Your task to perform on an android device: install app "Adobe Express: Graphic Design" Image 0: 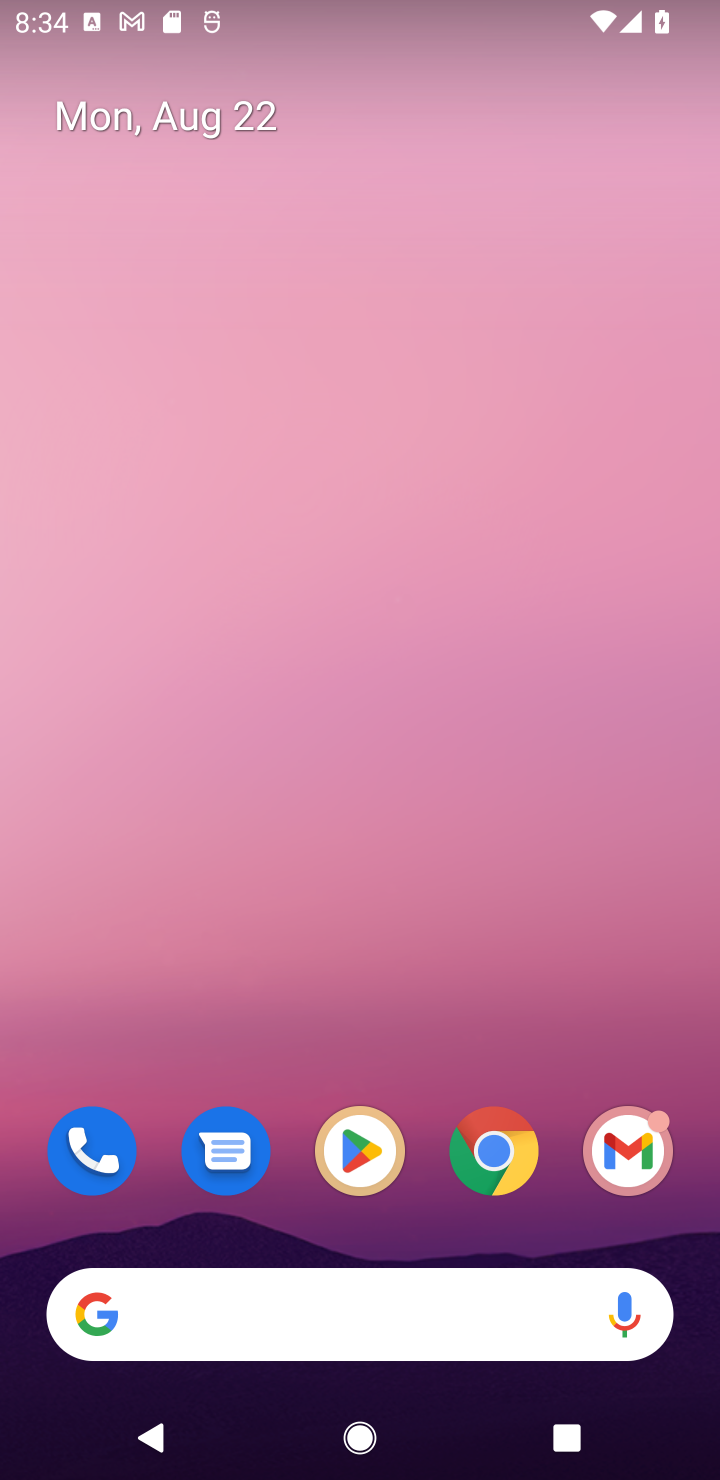
Step 0: click (353, 1142)
Your task to perform on an android device: install app "Adobe Express: Graphic Design" Image 1: 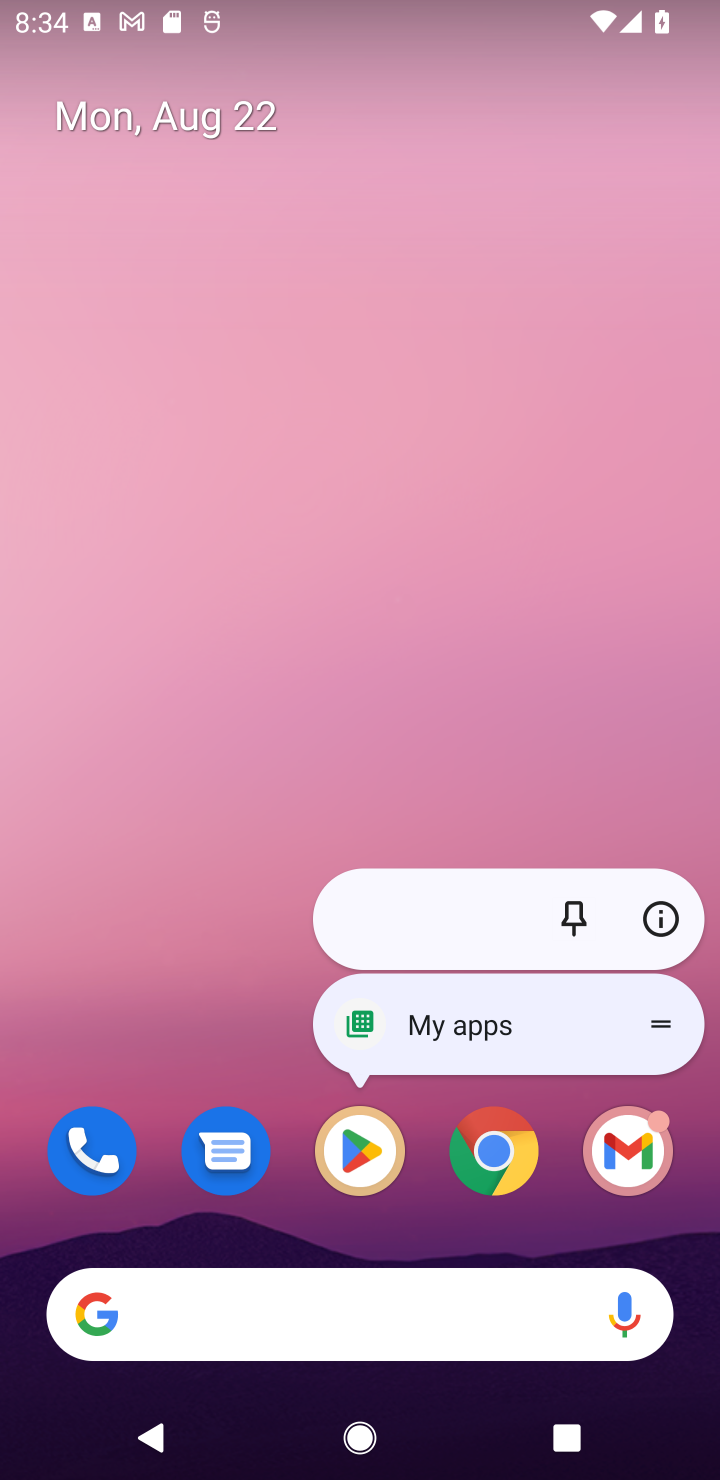
Step 1: click (351, 1158)
Your task to perform on an android device: install app "Adobe Express: Graphic Design" Image 2: 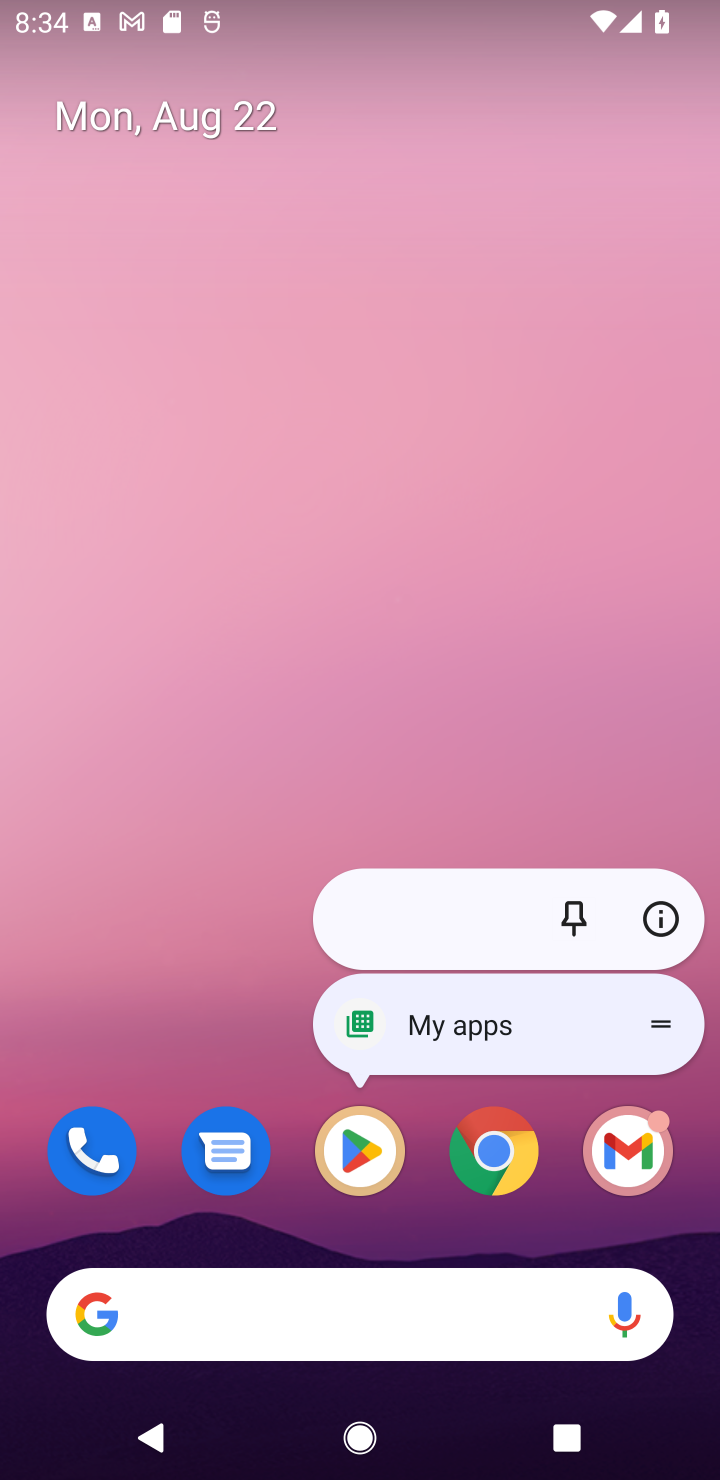
Step 2: click (349, 1175)
Your task to perform on an android device: install app "Adobe Express: Graphic Design" Image 3: 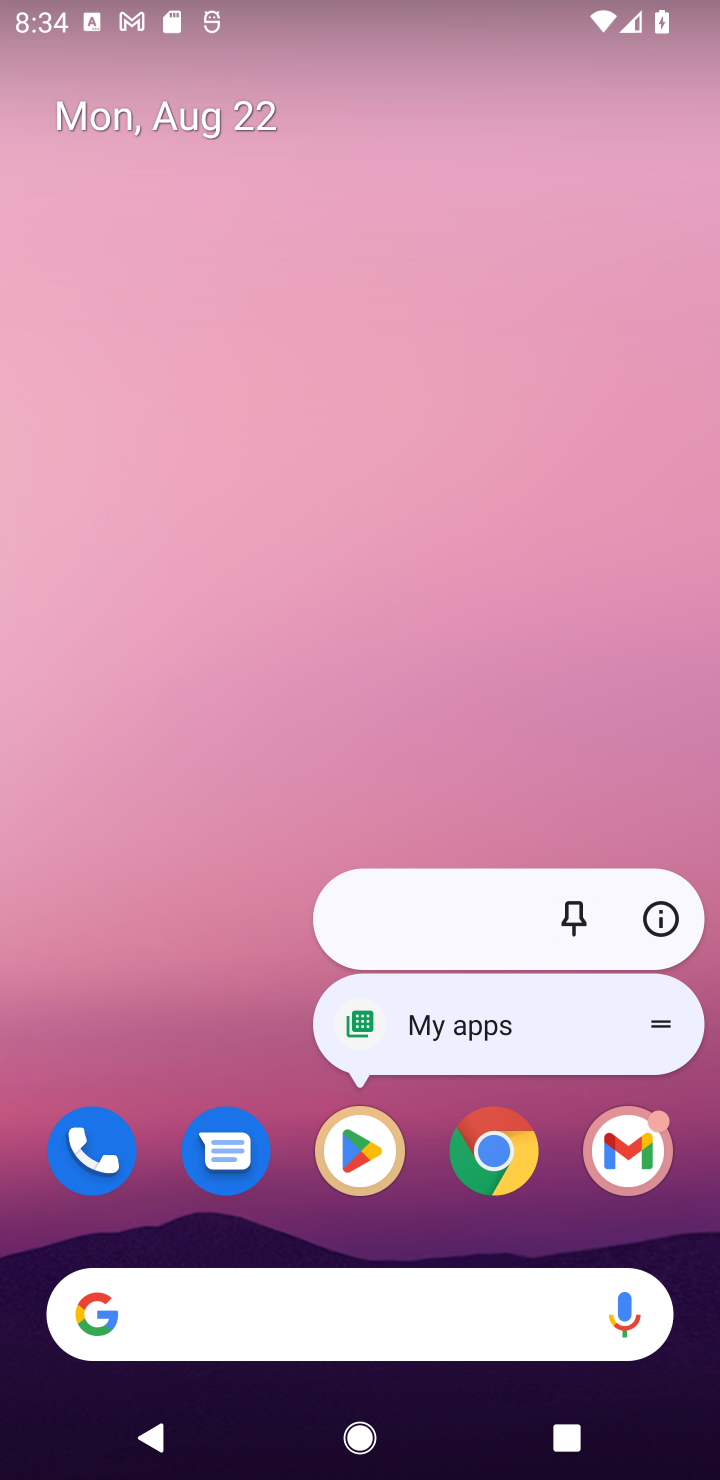
Step 3: click (350, 1169)
Your task to perform on an android device: install app "Adobe Express: Graphic Design" Image 4: 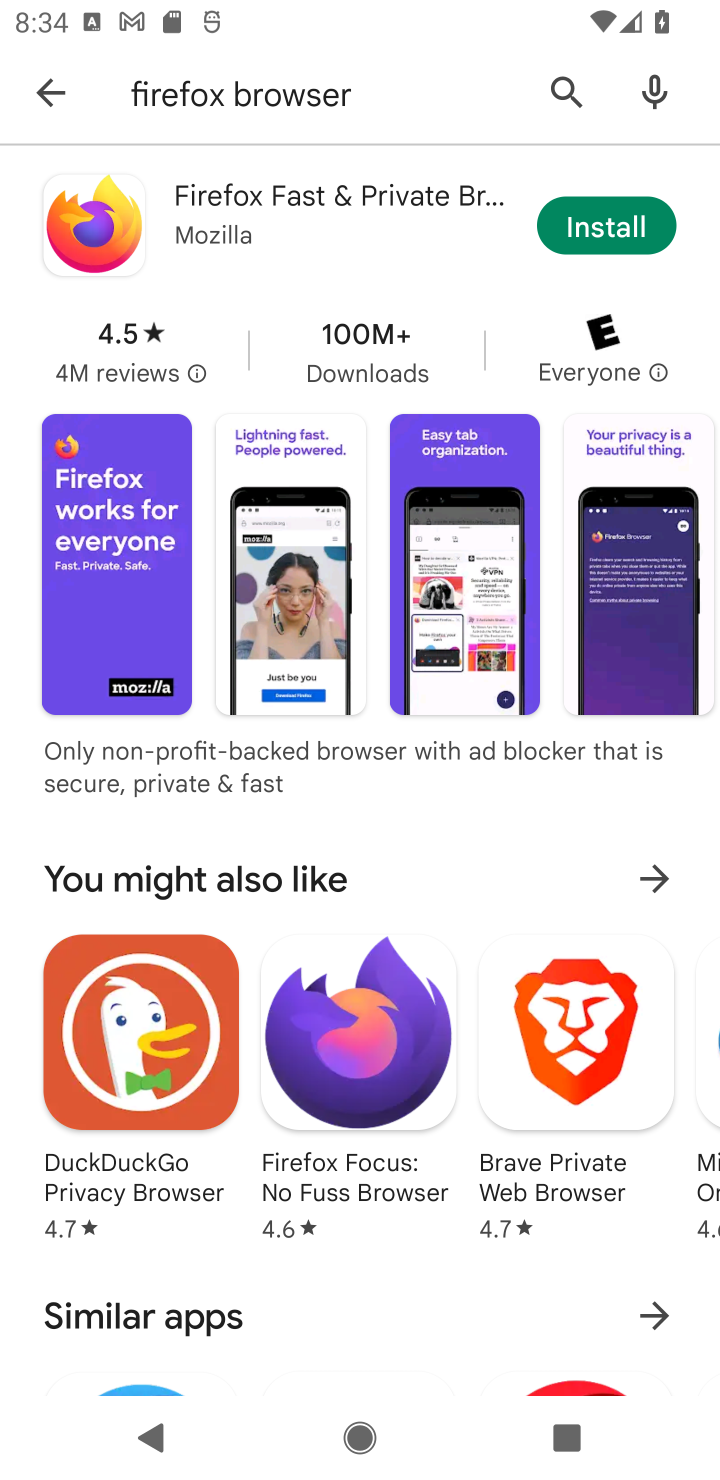
Step 4: click (553, 79)
Your task to perform on an android device: install app "Adobe Express: Graphic Design" Image 5: 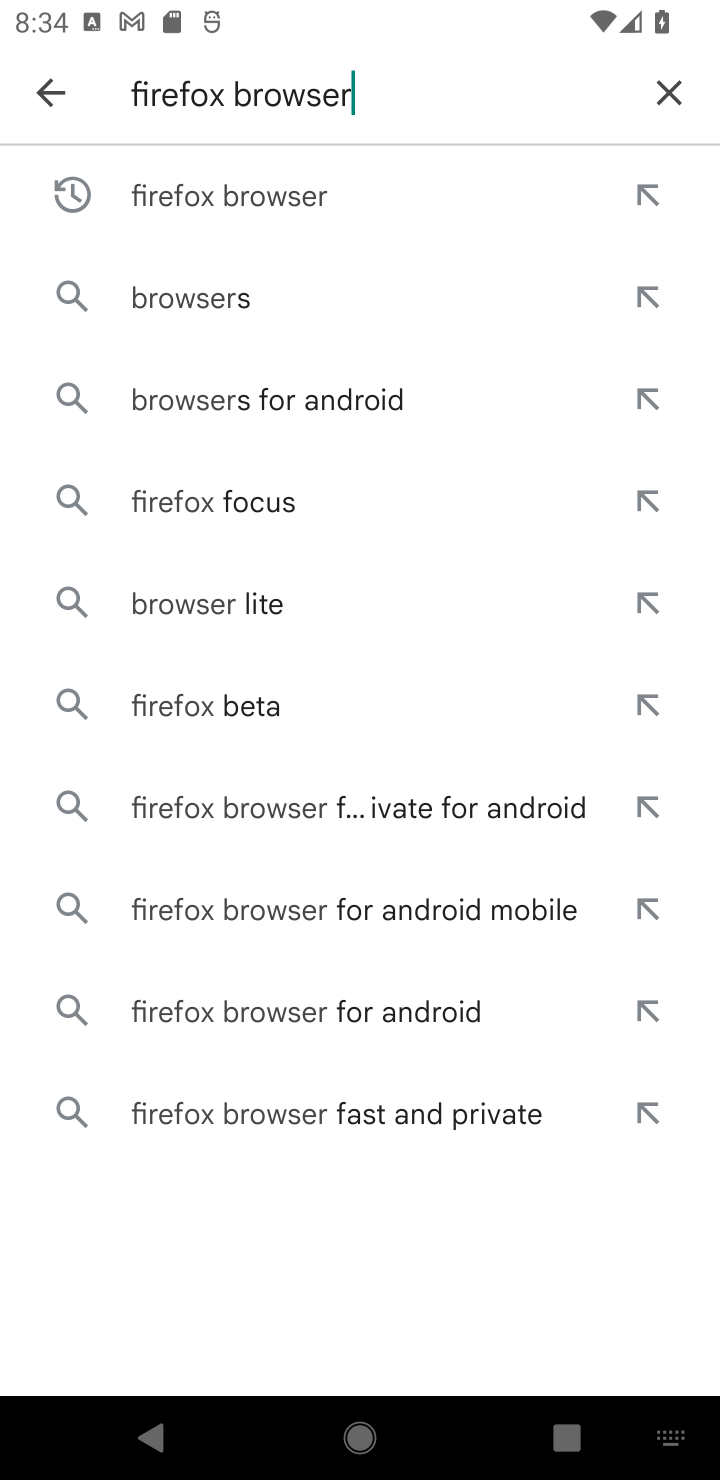
Step 5: click (657, 72)
Your task to perform on an android device: install app "Adobe Express: Graphic Design" Image 6: 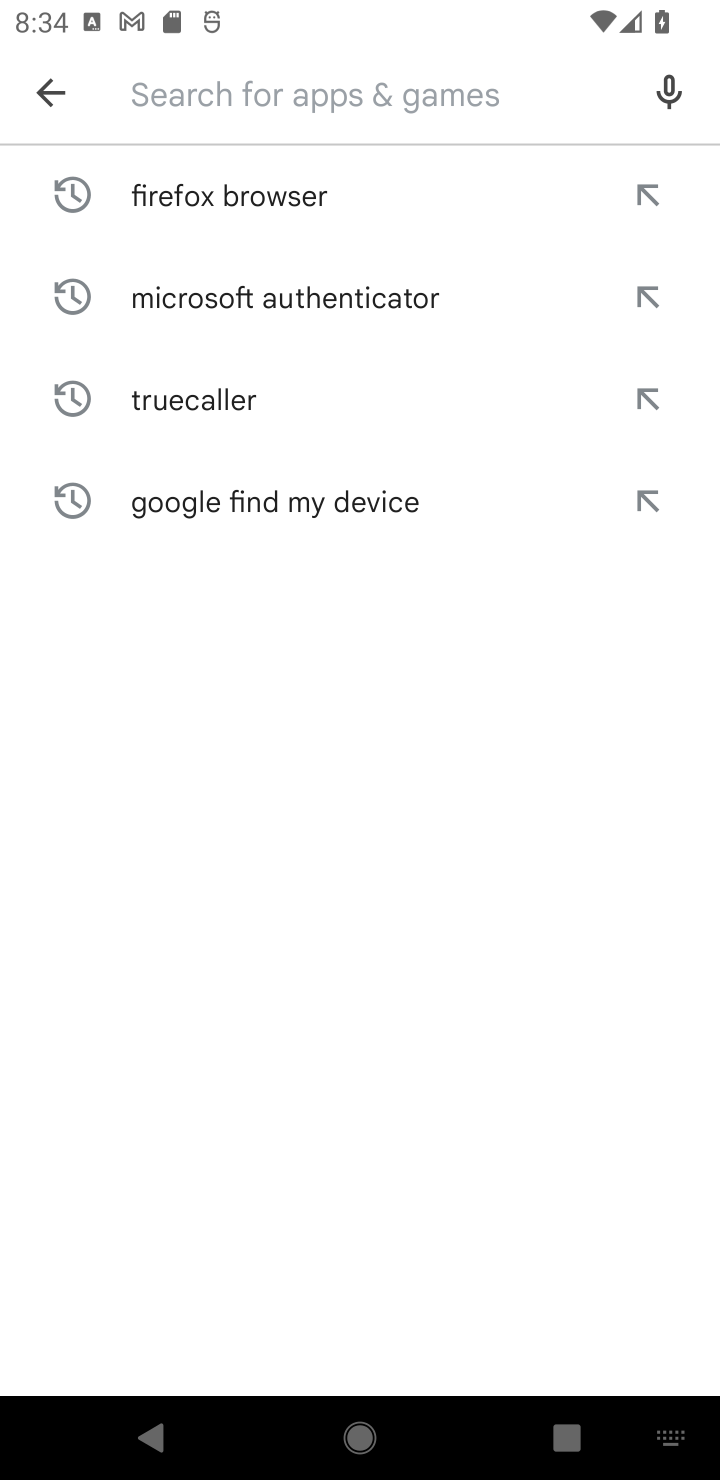
Step 6: type "Adobe Express: Graphic Design"
Your task to perform on an android device: install app "Adobe Express: Graphic Design" Image 7: 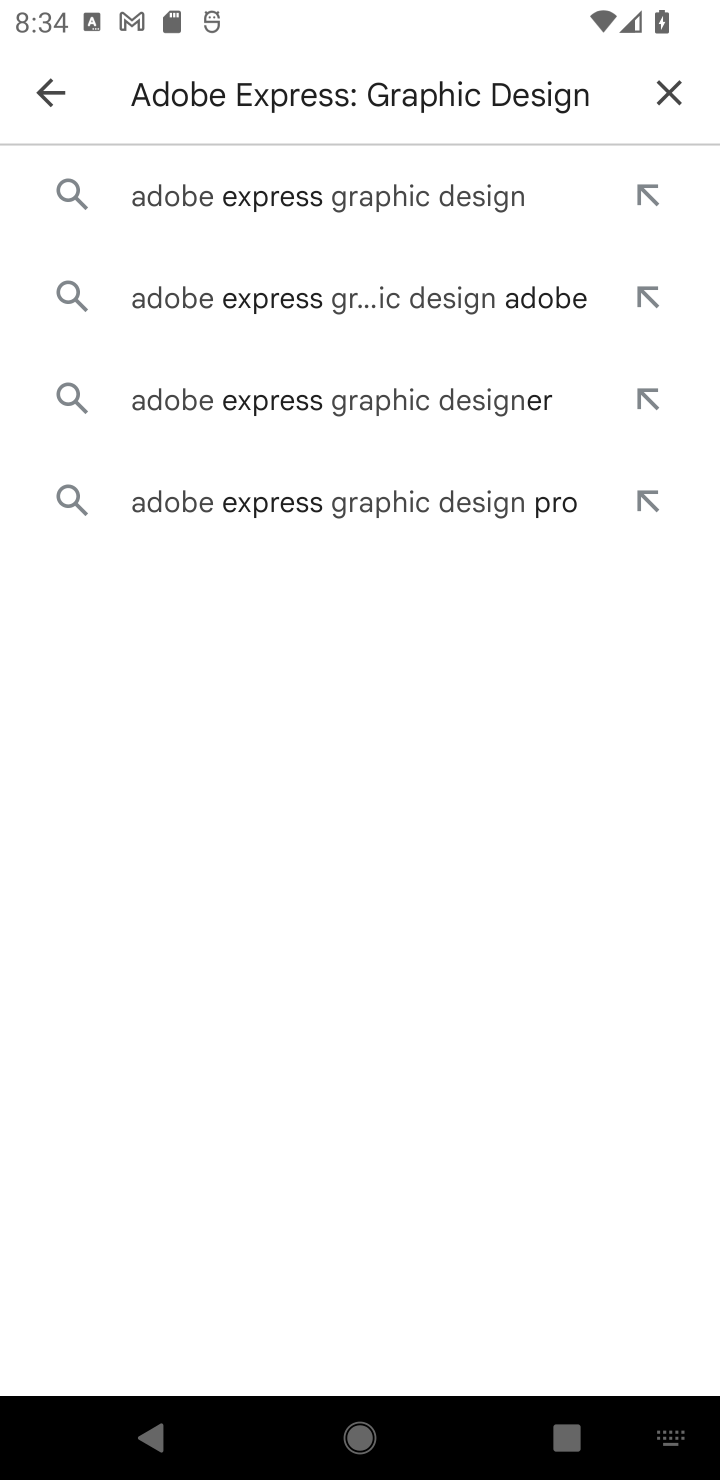
Step 7: click (313, 202)
Your task to perform on an android device: install app "Adobe Express: Graphic Design" Image 8: 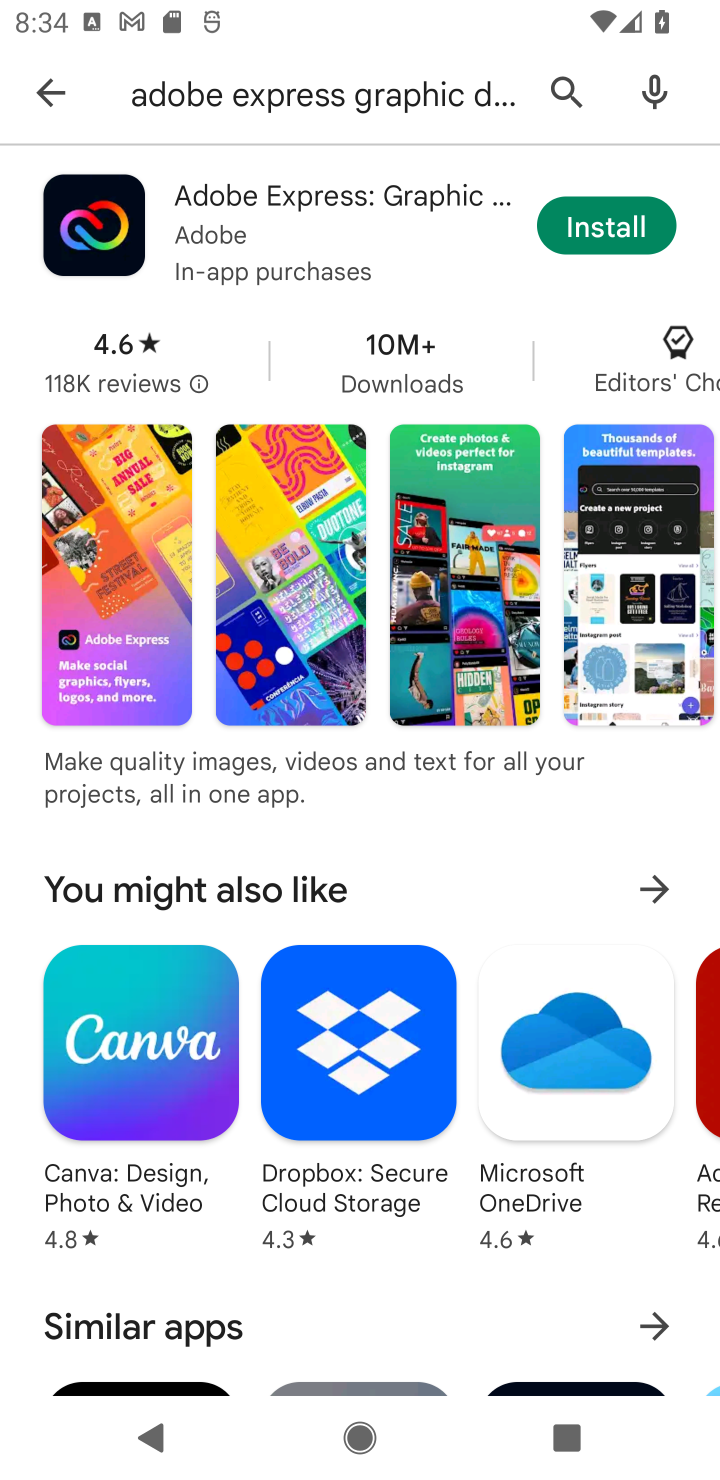
Step 8: click (633, 224)
Your task to perform on an android device: install app "Adobe Express: Graphic Design" Image 9: 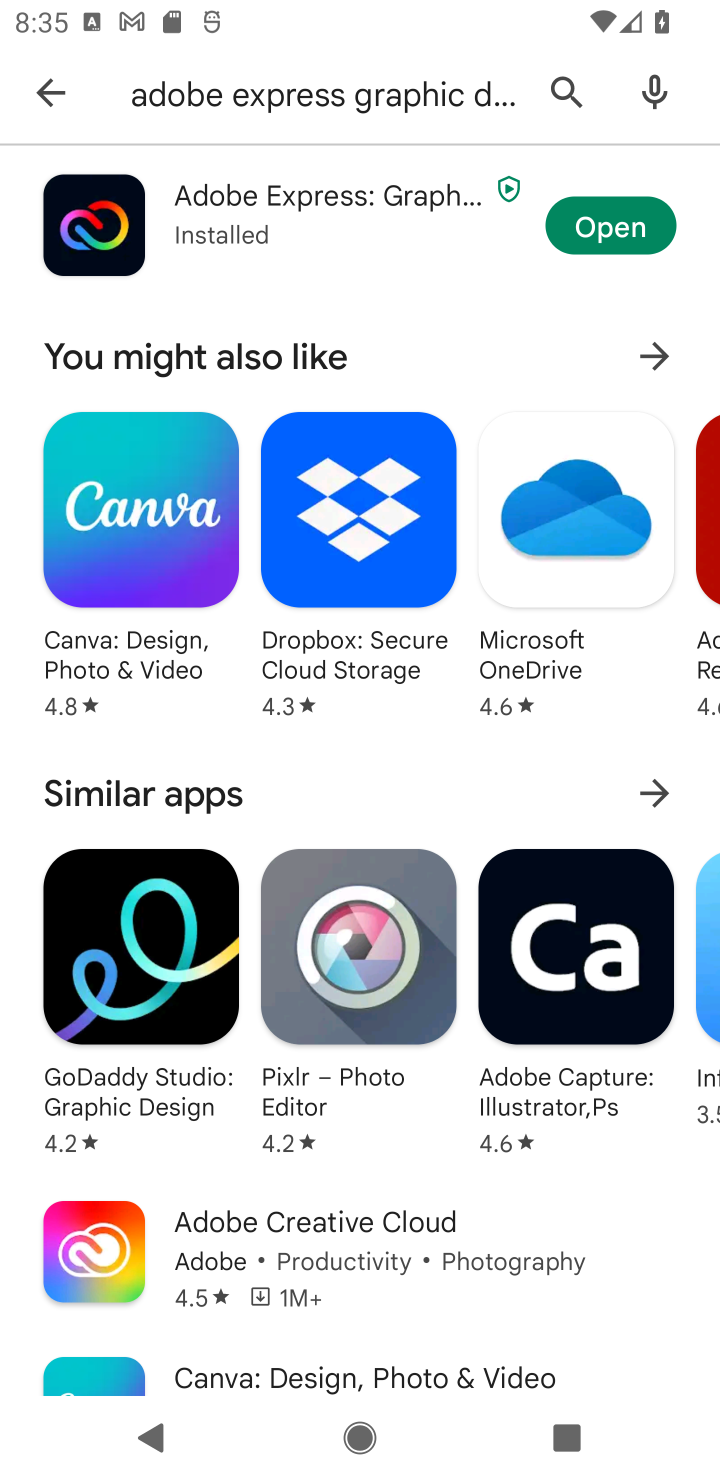
Step 9: task complete